Your task to perform on an android device: Is it going to rain this weekend? Image 0: 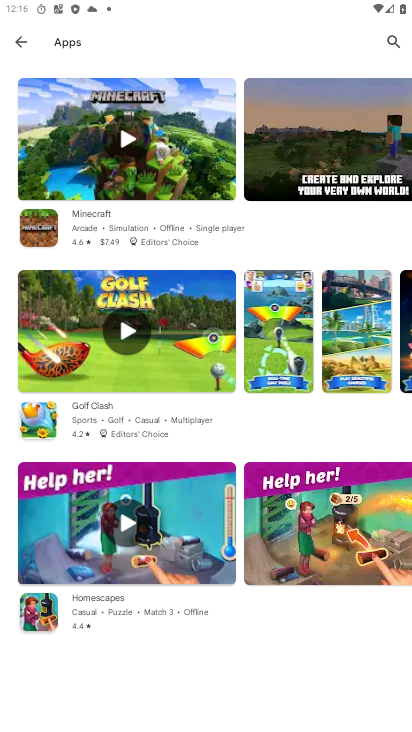
Step 0: press home button
Your task to perform on an android device: Is it going to rain this weekend? Image 1: 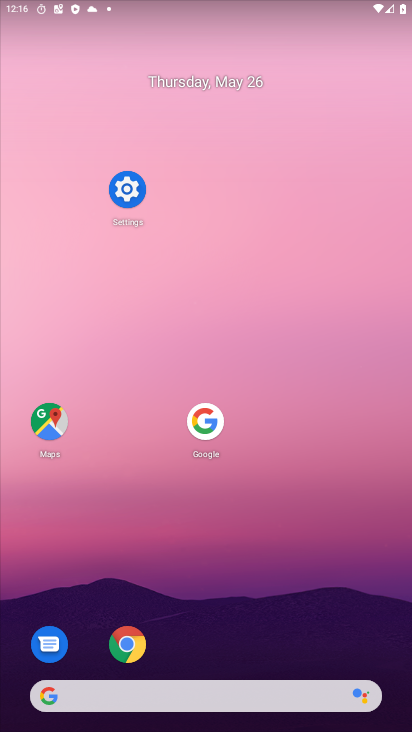
Step 1: click (205, 420)
Your task to perform on an android device: Is it going to rain this weekend? Image 2: 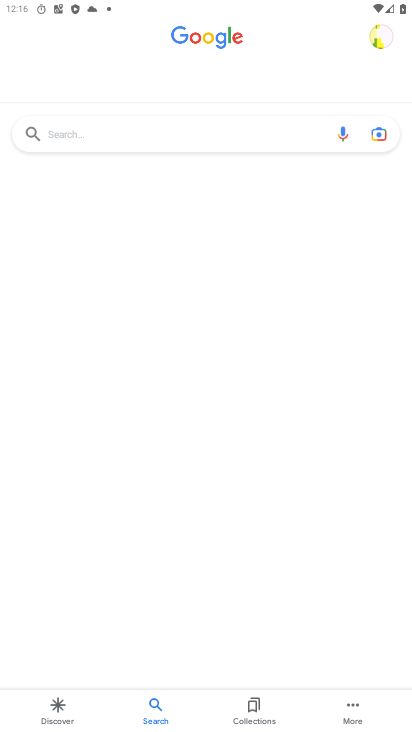
Step 2: click (146, 125)
Your task to perform on an android device: Is it going to rain this weekend? Image 3: 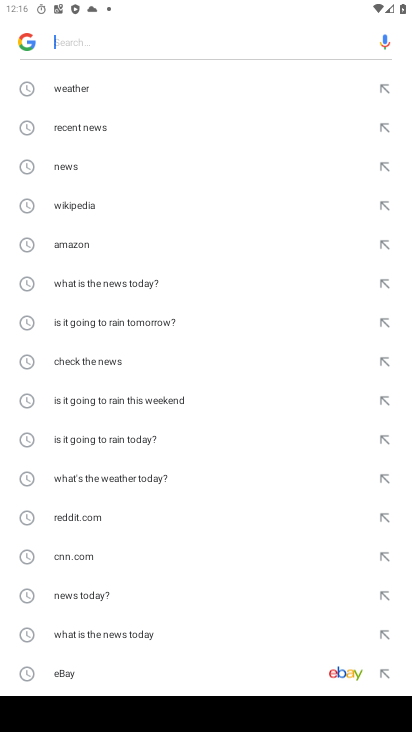
Step 3: click (118, 407)
Your task to perform on an android device: Is it going to rain this weekend? Image 4: 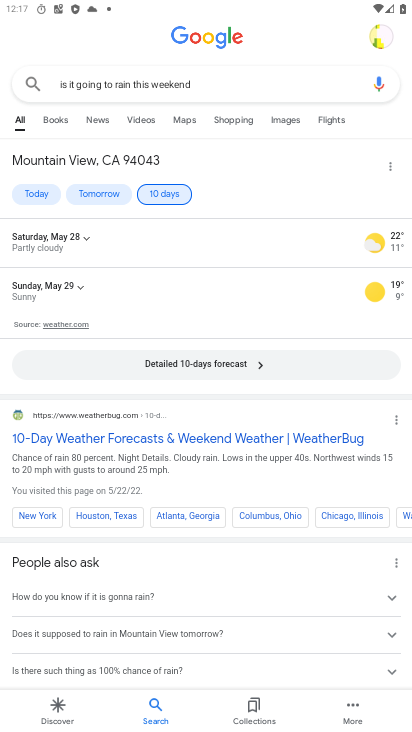
Step 4: task complete